Your task to perform on an android device: Open Youtube and go to "Your channel" Image 0: 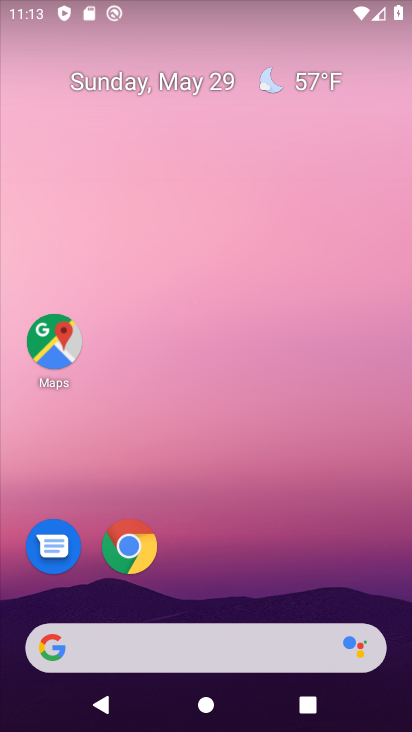
Step 0: press home button
Your task to perform on an android device: Open Youtube and go to "Your channel" Image 1: 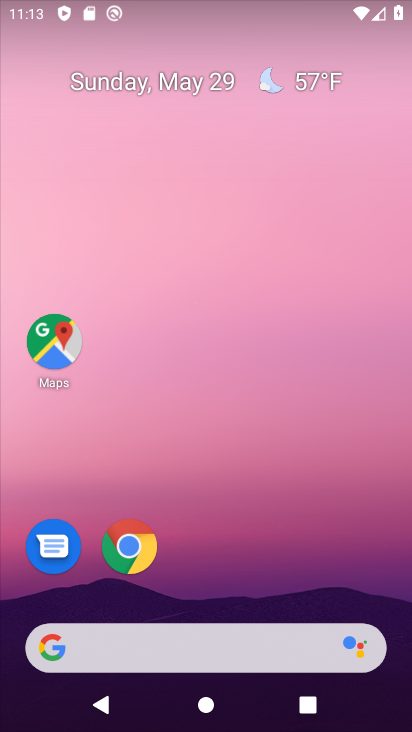
Step 1: drag from (173, 654) to (343, 101)
Your task to perform on an android device: Open Youtube and go to "Your channel" Image 2: 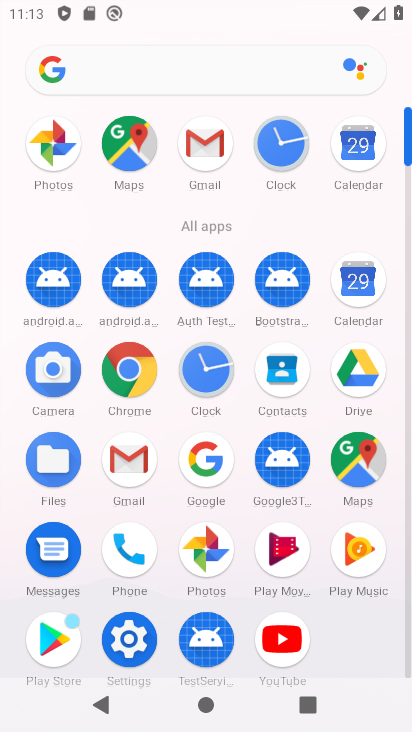
Step 2: click (288, 646)
Your task to perform on an android device: Open Youtube and go to "Your channel" Image 3: 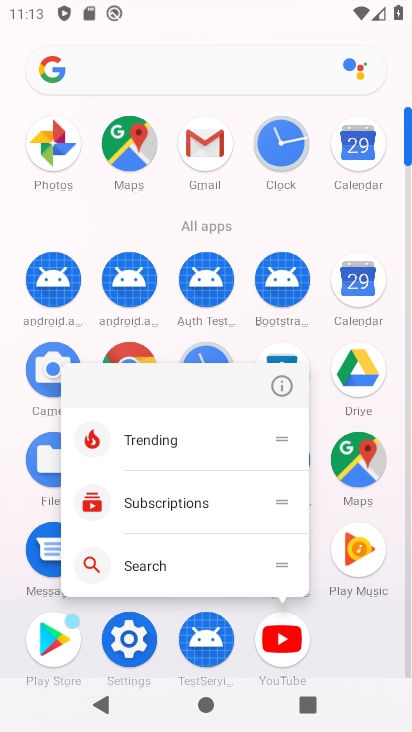
Step 3: click (288, 636)
Your task to perform on an android device: Open Youtube and go to "Your channel" Image 4: 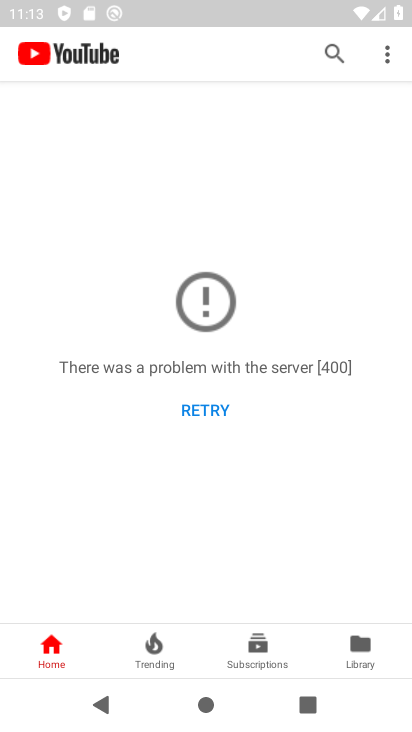
Step 4: click (203, 399)
Your task to perform on an android device: Open Youtube and go to "Your channel" Image 5: 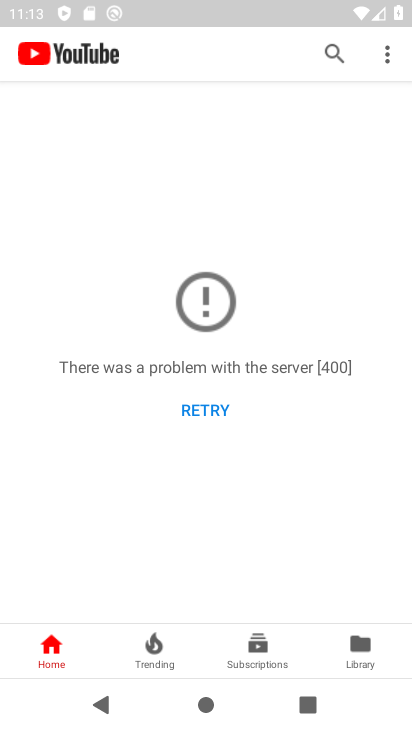
Step 5: click (198, 412)
Your task to perform on an android device: Open Youtube and go to "Your channel" Image 6: 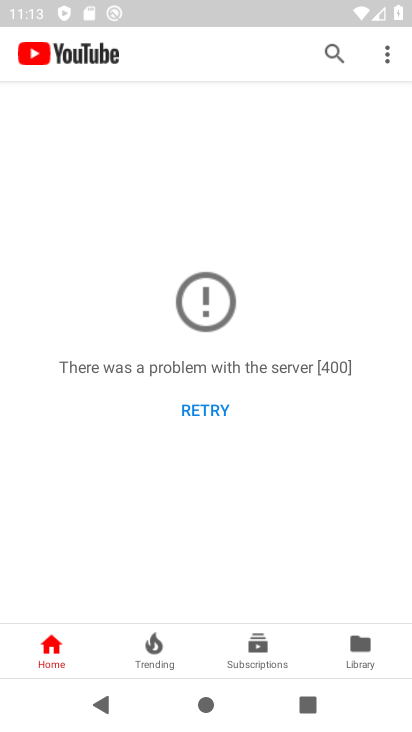
Step 6: click (208, 409)
Your task to perform on an android device: Open Youtube and go to "Your channel" Image 7: 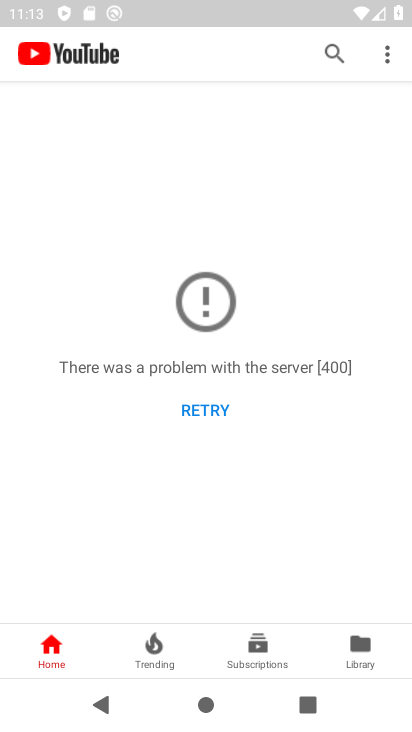
Step 7: click (208, 409)
Your task to perform on an android device: Open Youtube and go to "Your channel" Image 8: 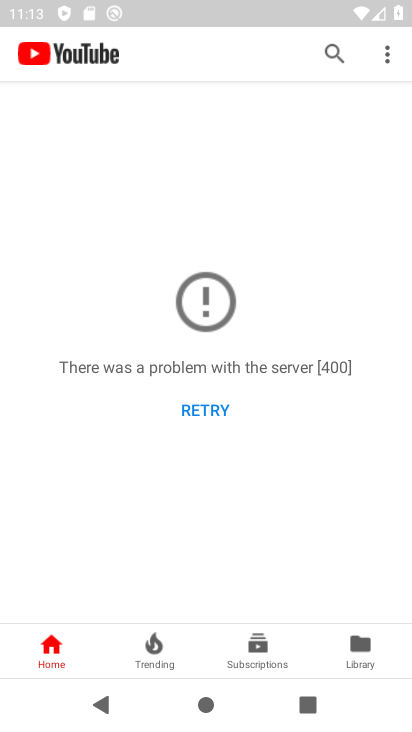
Step 8: click (208, 409)
Your task to perform on an android device: Open Youtube and go to "Your channel" Image 9: 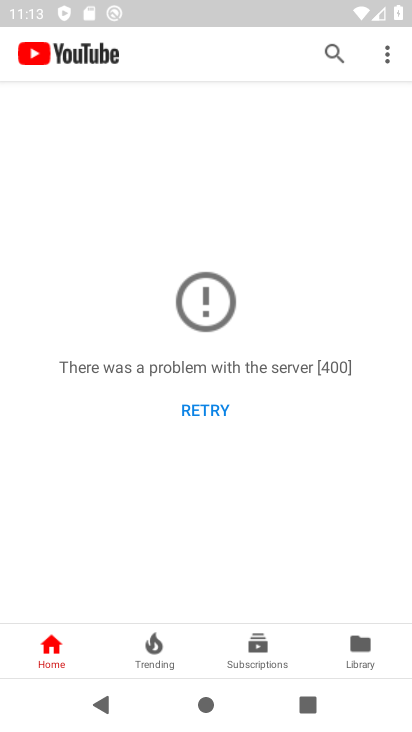
Step 9: click (386, 50)
Your task to perform on an android device: Open Youtube and go to "Your channel" Image 10: 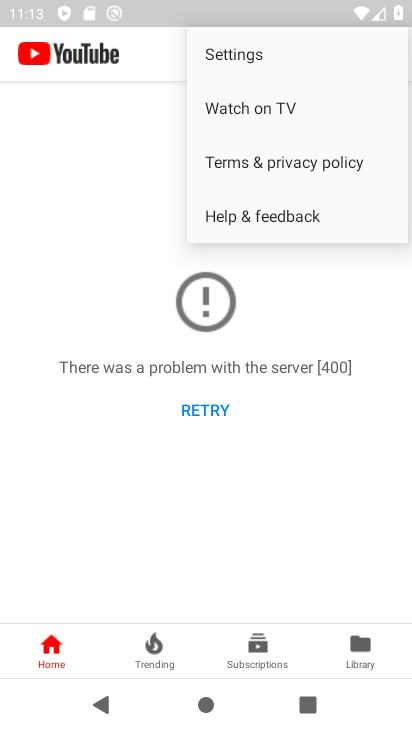
Step 10: click (286, 320)
Your task to perform on an android device: Open Youtube and go to "Your channel" Image 11: 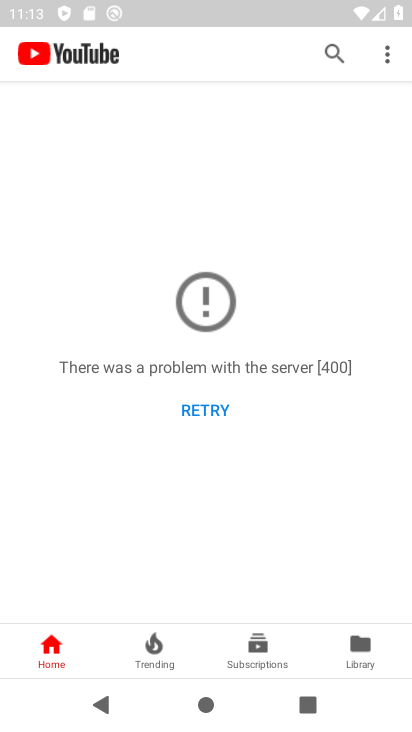
Step 11: task complete